Your task to perform on an android device: Turn off the flashlight Image 0: 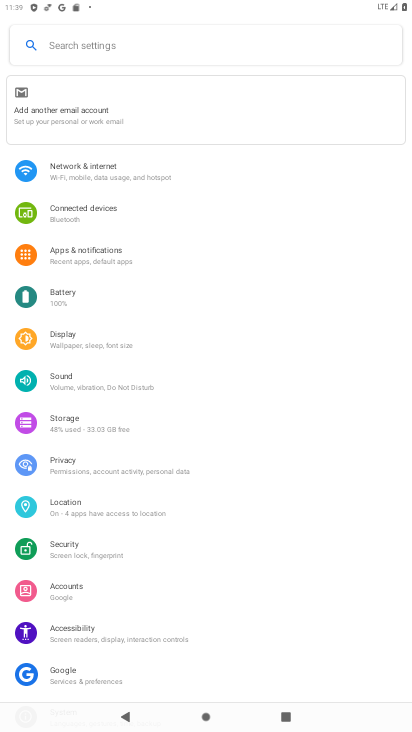
Step 0: task impossible